Your task to perform on an android device: Open battery settings Image 0: 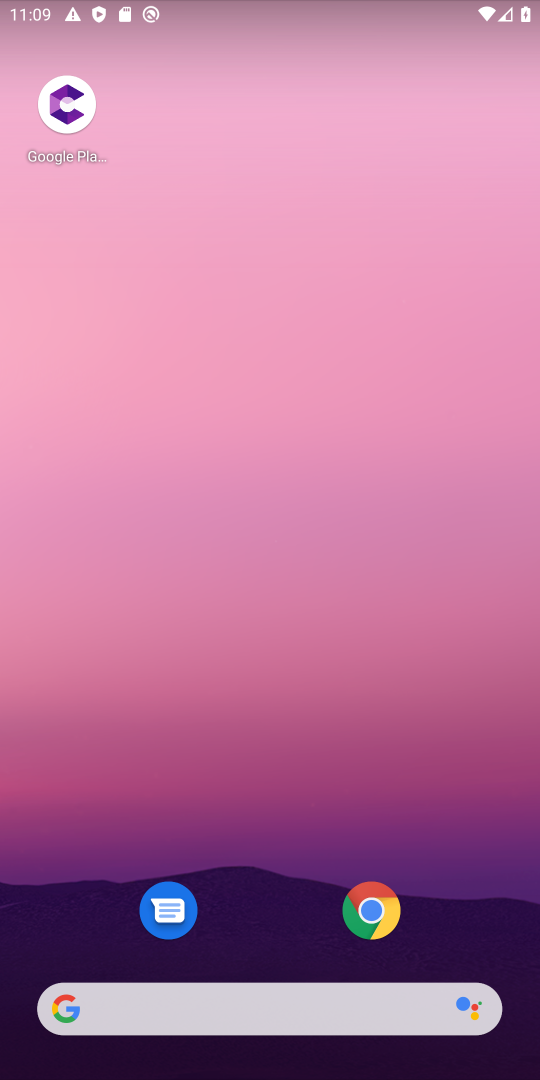
Step 0: press home button
Your task to perform on an android device: Open battery settings Image 1: 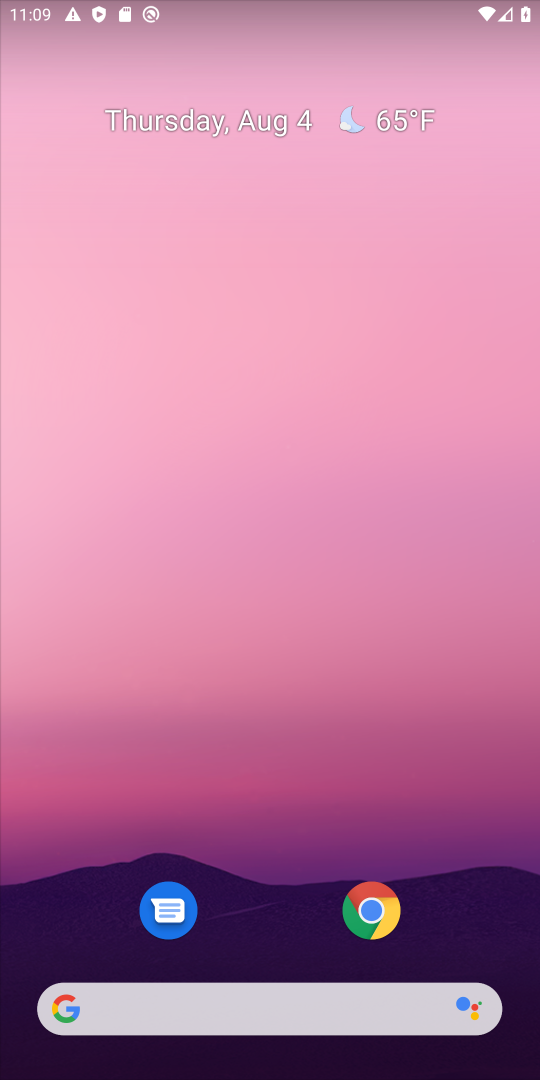
Step 1: drag from (250, 542) to (250, 250)
Your task to perform on an android device: Open battery settings Image 2: 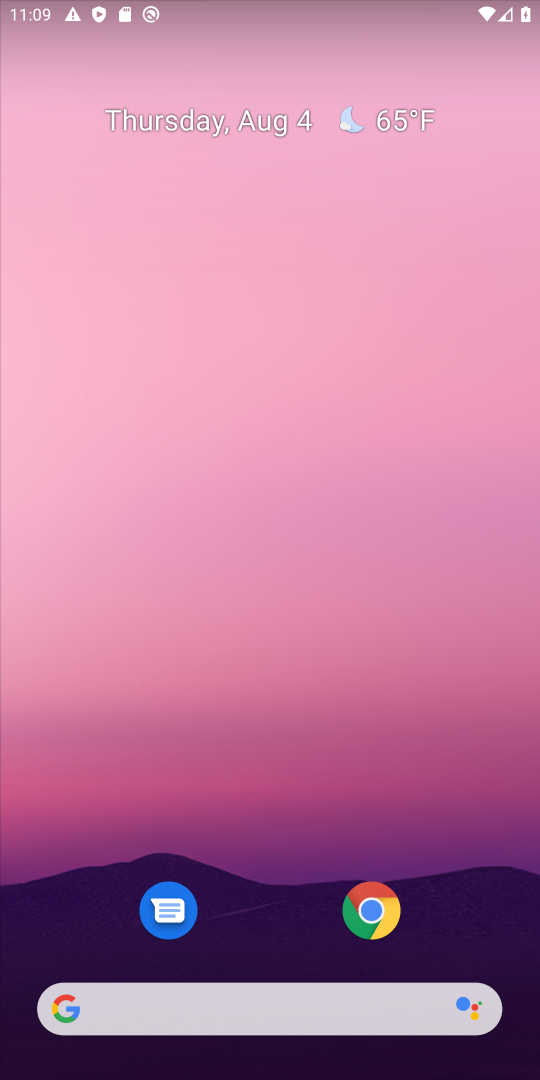
Step 2: drag from (253, 875) to (253, 470)
Your task to perform on an android device: Open battery settings Image 3: 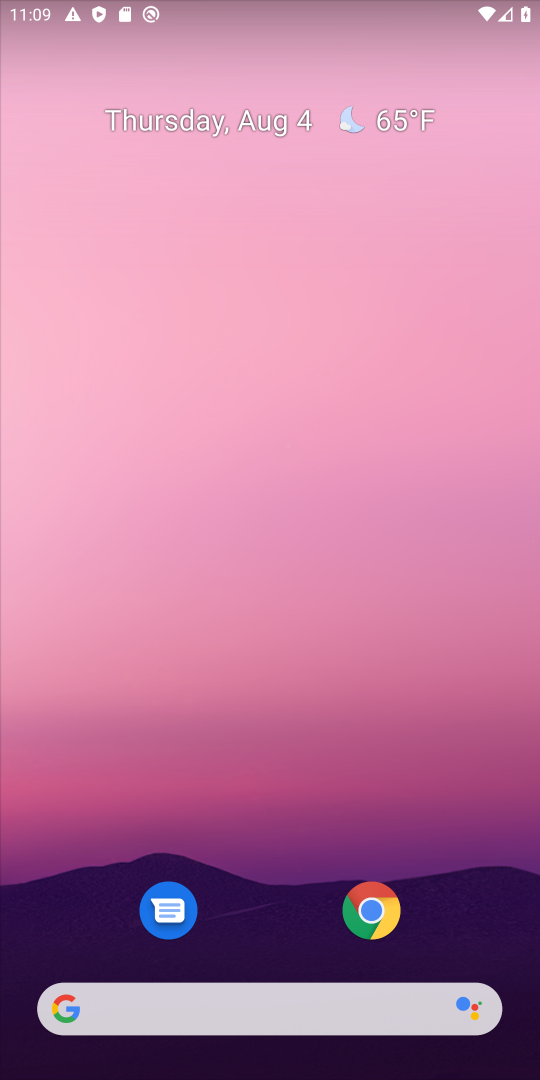
Step 3: drag from (255, 867) to (255, 548)
Your task to perform on an android device: Open battery settings Image 4: 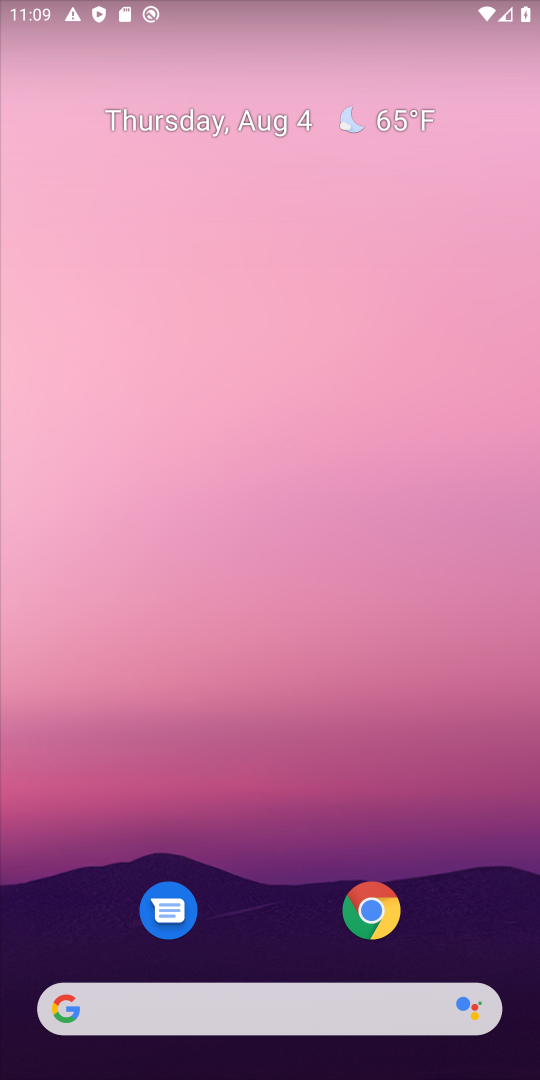
Step 4: drag from (283, 979) to (342, 143)
Your task to perform on an android device: Open battery settings Image 5: 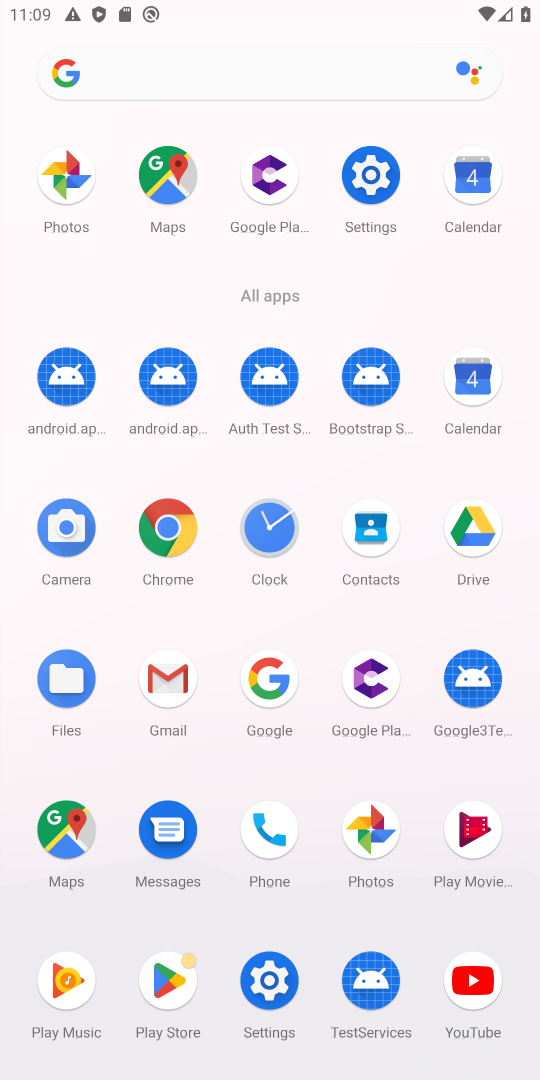
Step 5: click (359, 184)
Your task to perform on an android device: Open battery settings Image 6: 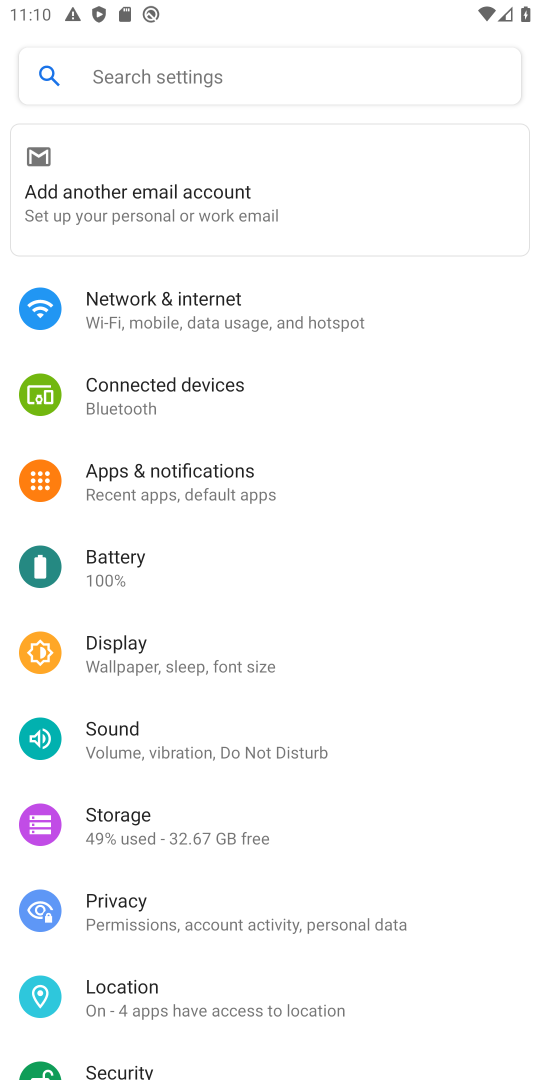
Step 6: click (141, 556)
Your task to perform on an android device: Open battery settings Image 7: 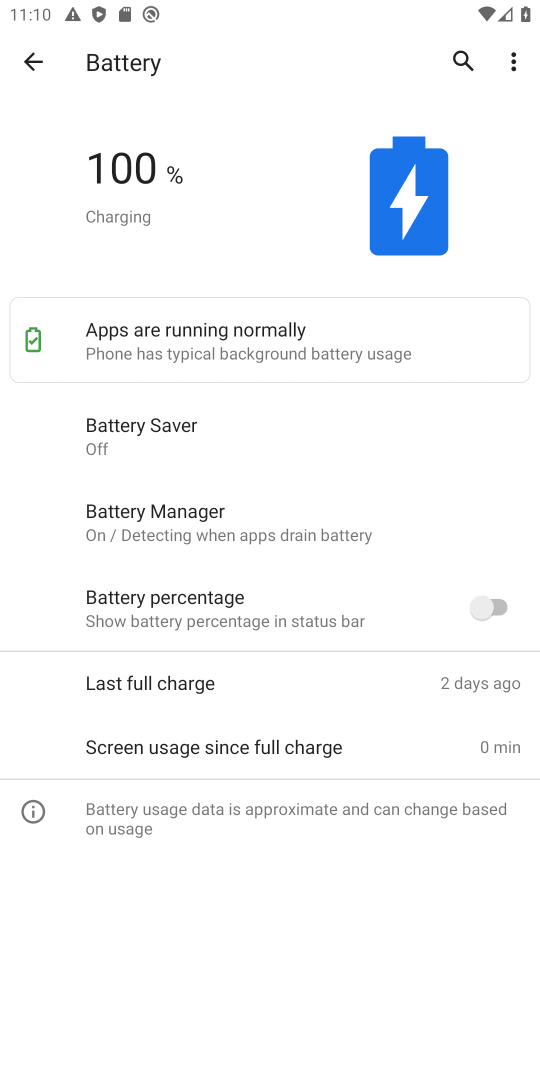
Step 7: task complete